Your task to perform on an android device: Go to Android settings Image 0: 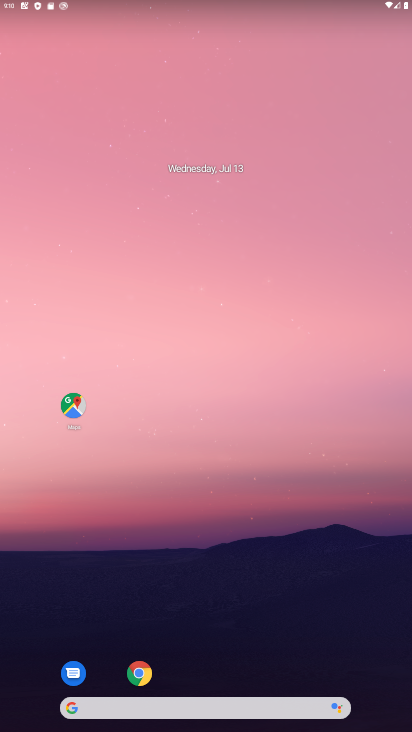
Step 0: drag from (216, 686) to (185, 192)
Your task to perform on an android device: Go to Android settings Image 1: 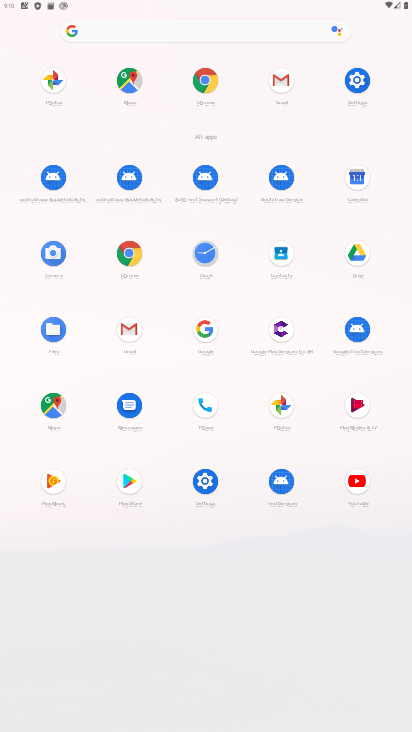
Step 1: click (357, 82)
Your task to perform on an android device: Go to Android settings Image 2: 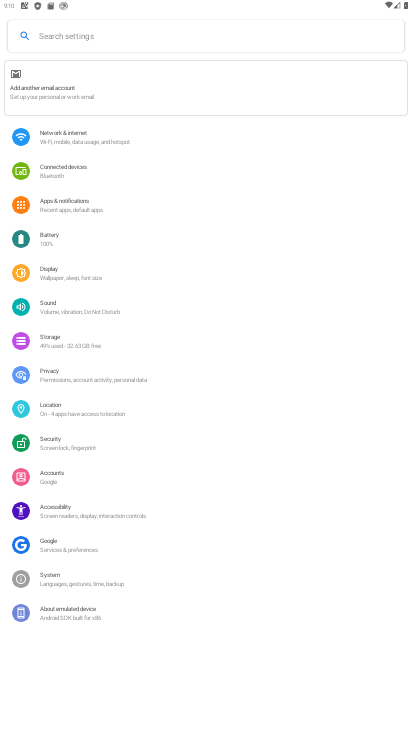
Step 2: task complete